Your task to perform on an android device: toggle location history Image 0: 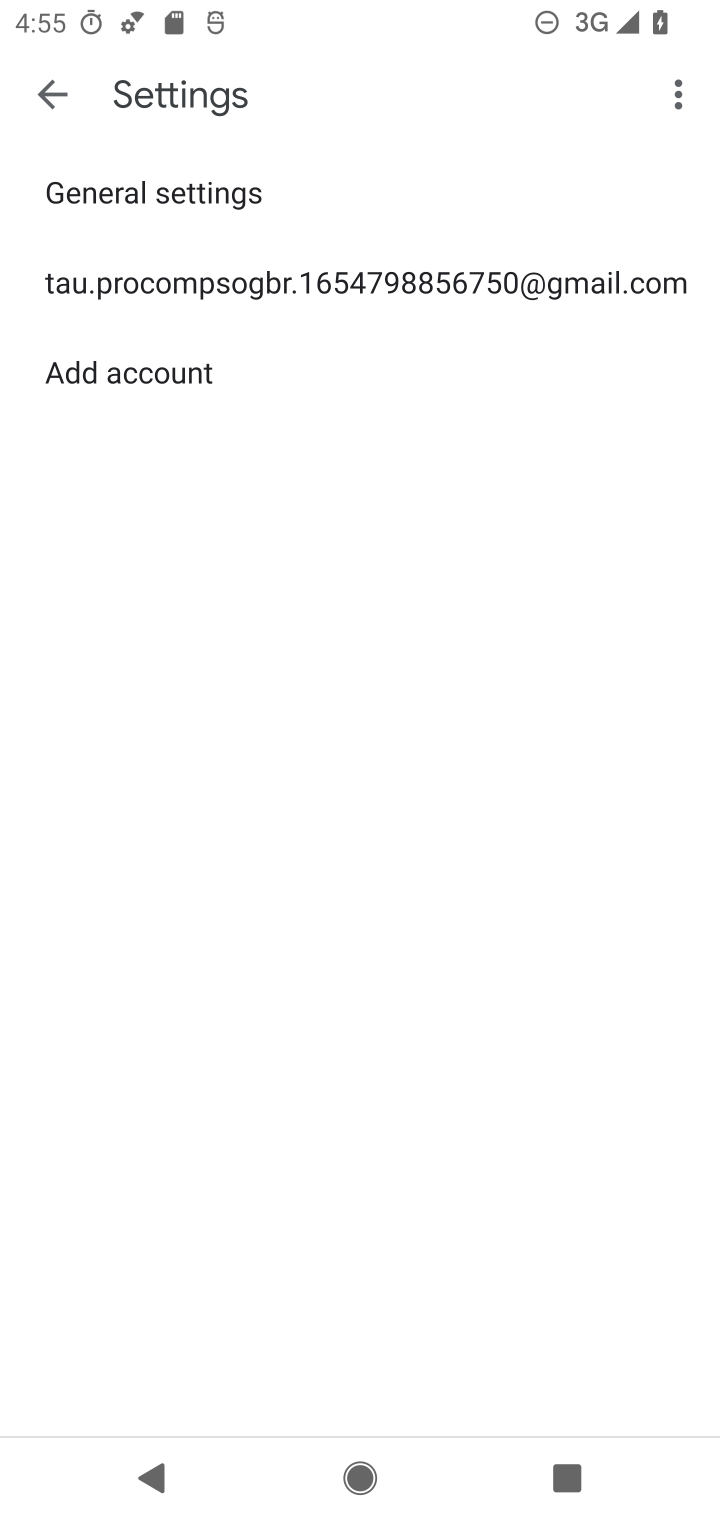
Step 0: press home button
Your task to perform on an android device: toggle location history Image 1: 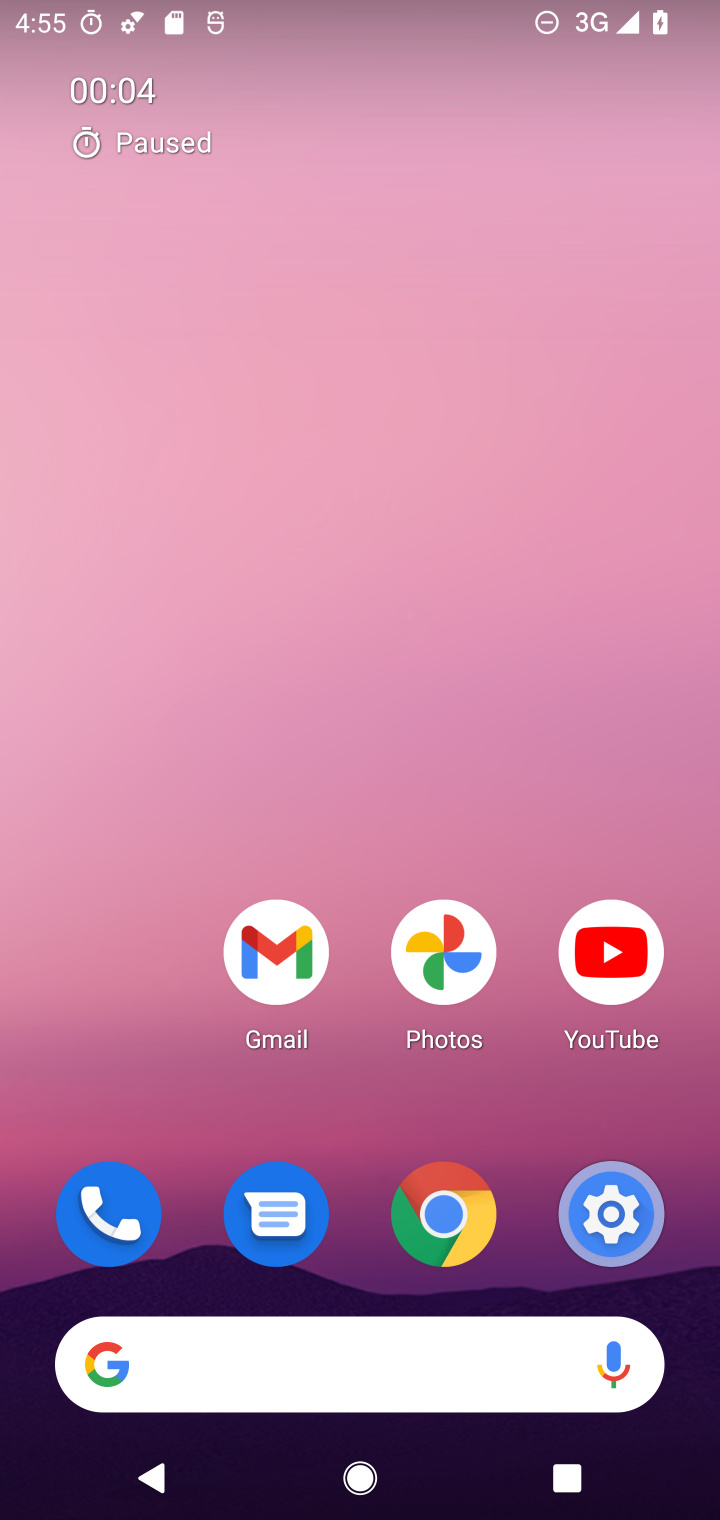
Step 1: click (612, 1225)
Your task to perform on an android device: toggle location history Image 2: 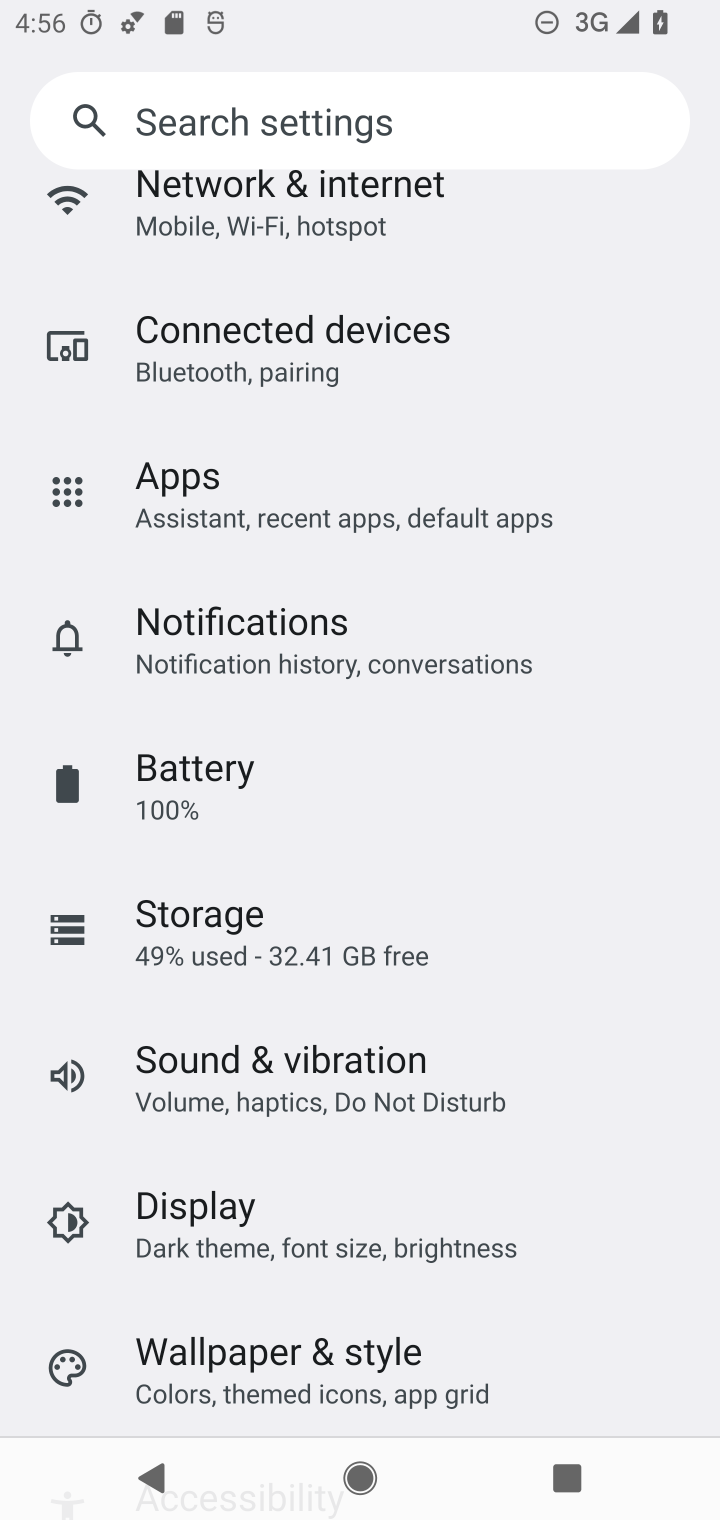
Step 2: drag from (348, 1255) to (220, 351)
Your task to perform on an android device: toggle location history Image 3: 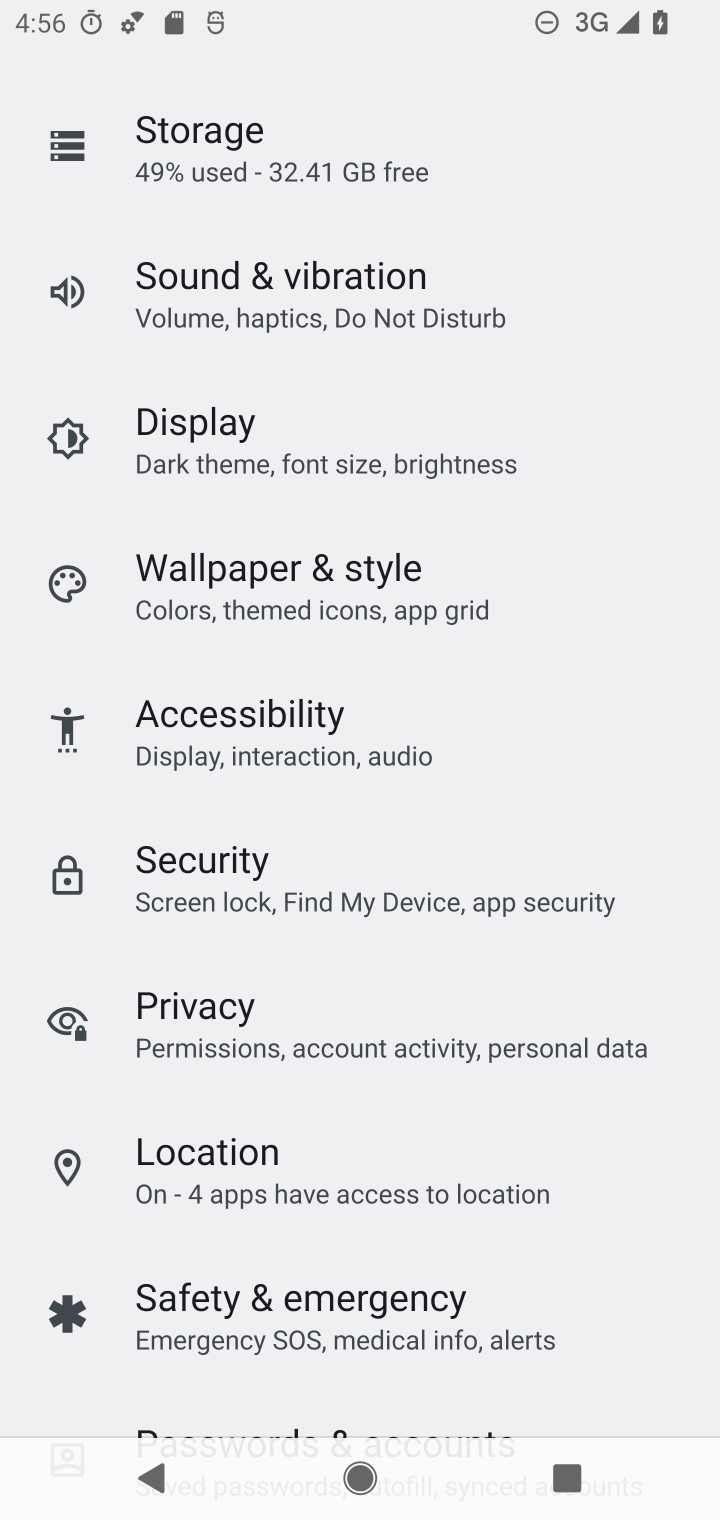
Step 3: click (278, 1196)
Your task to perform on an android device: toggle location history Image 4: 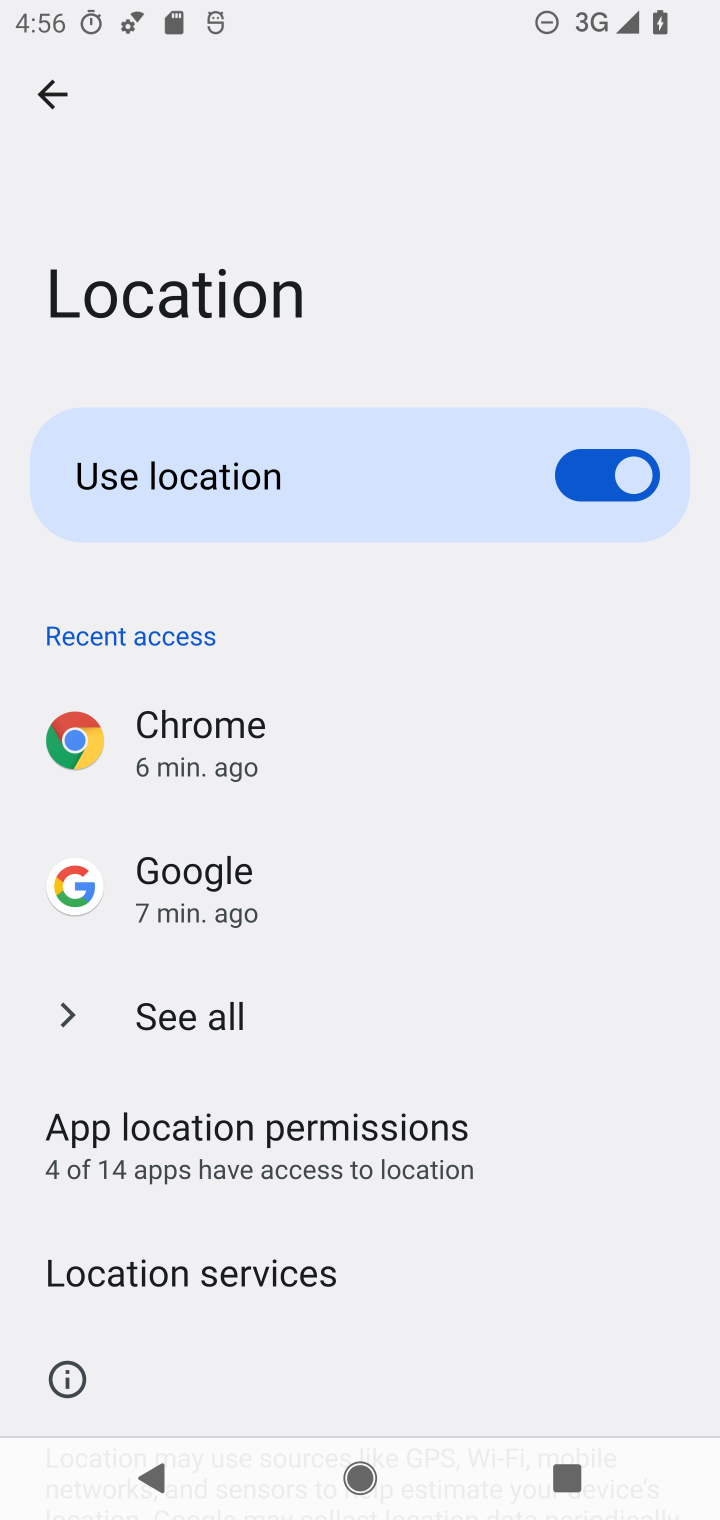
Step 4: drag from (389, 1262) to (204, 504)
Your task to perform on an android device: toggle location history Image 5: 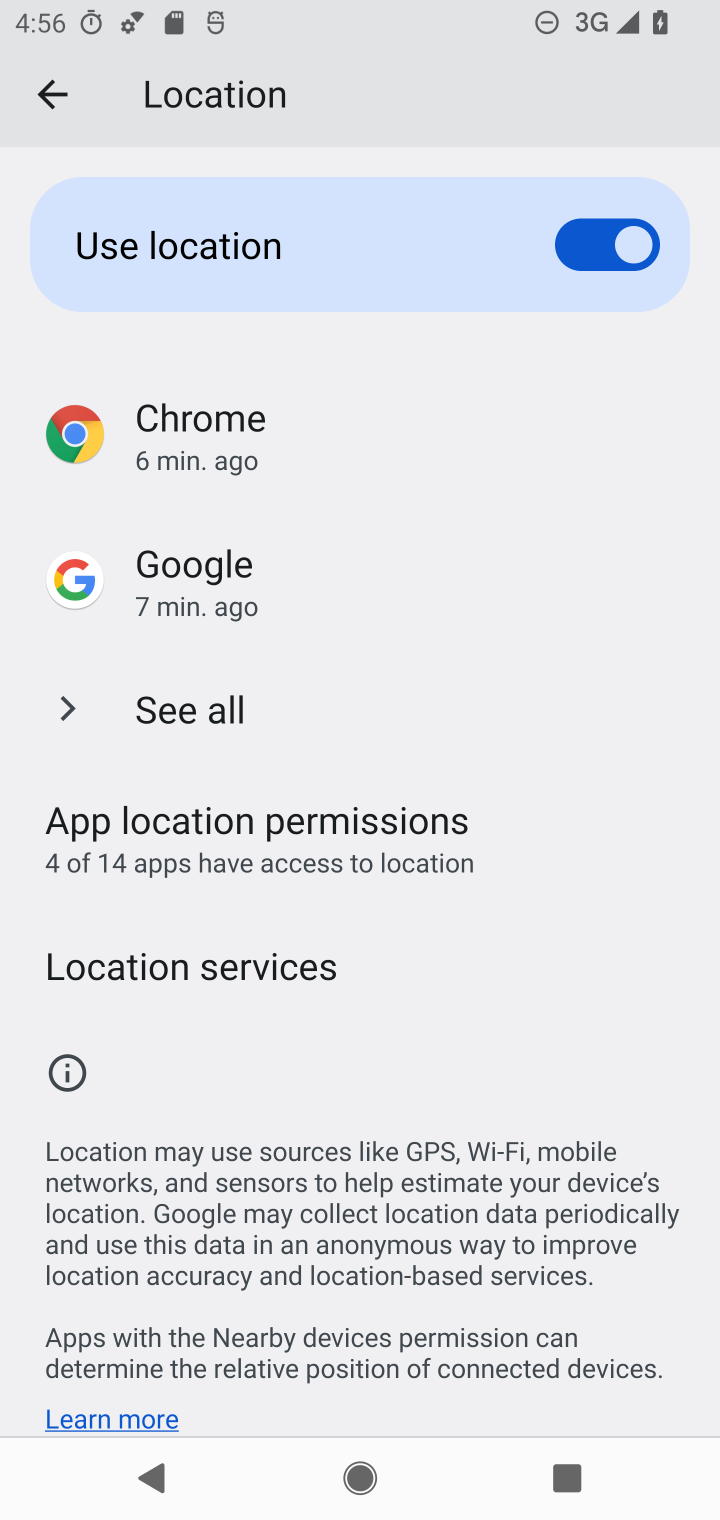
Step 5: click (234, 970)
Your task to perform on an android device: toggle location history Image 6: 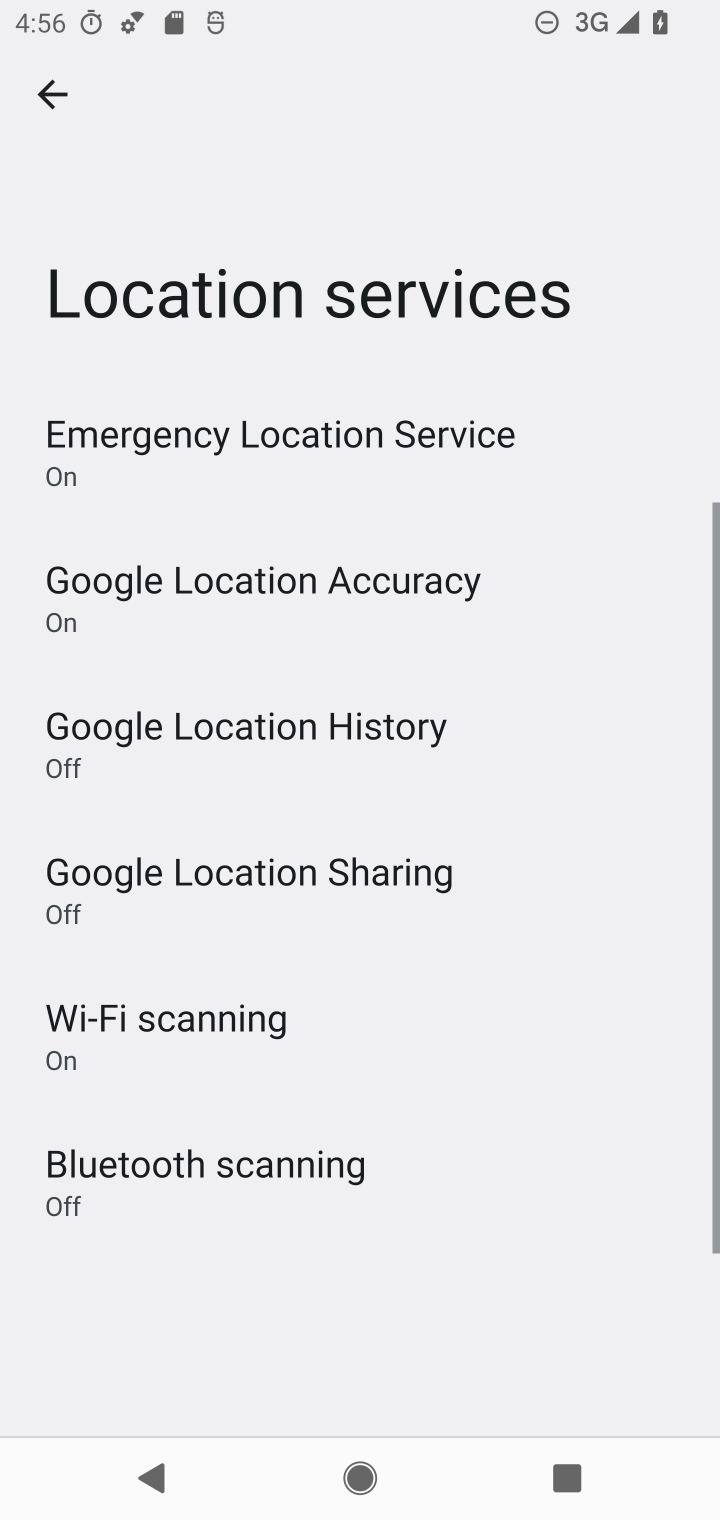
Step 6: click (343, 751)
Your task to perform on an android device: toggle location history Image 7: 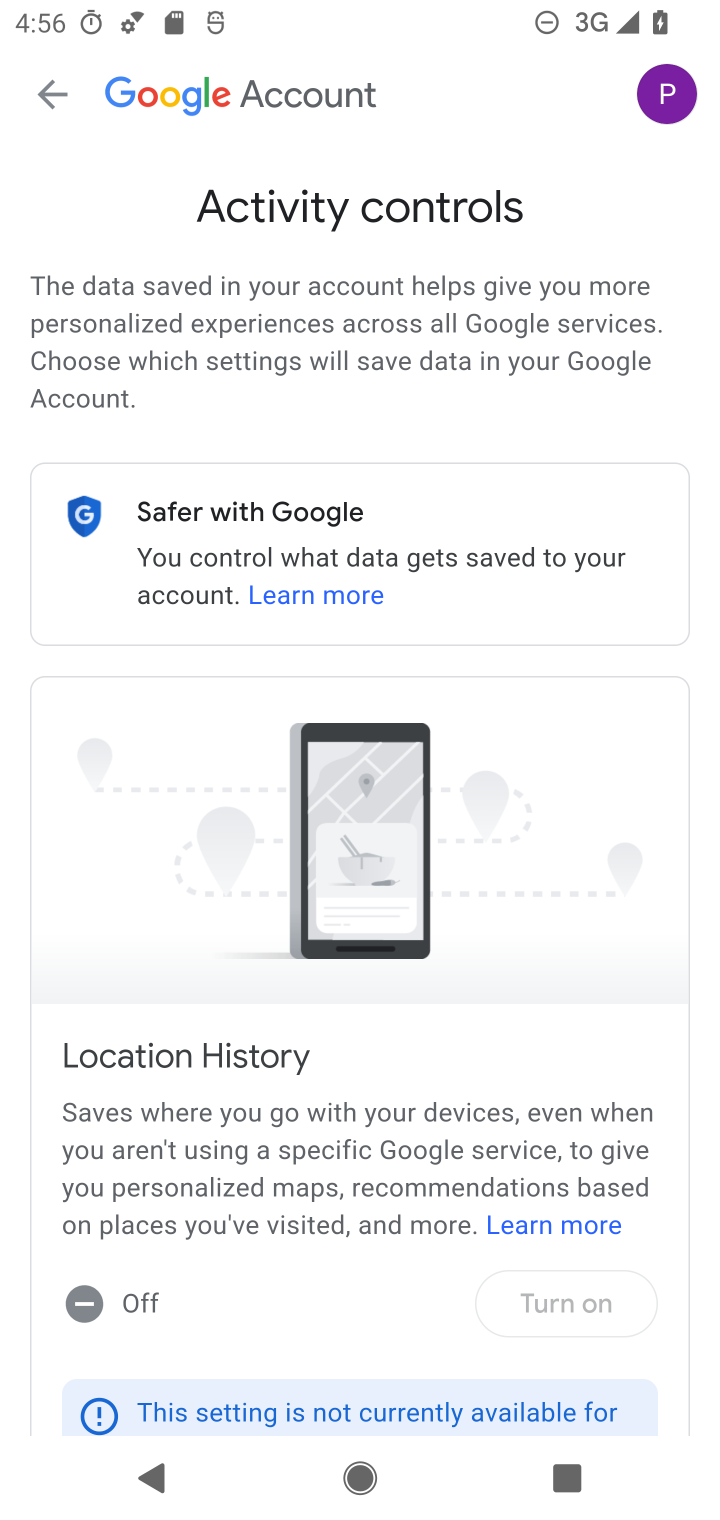
Step 7: task complete